Your task to perform on an android device: Open the phone app and click the voicemail tab. Image 0: 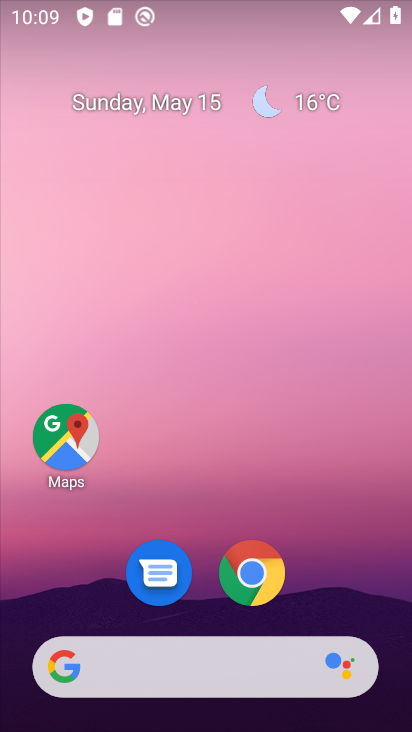
Step 0: press home button
Your task to perform on an android device: Open the phone app and click the voicemail tab. Image 1: 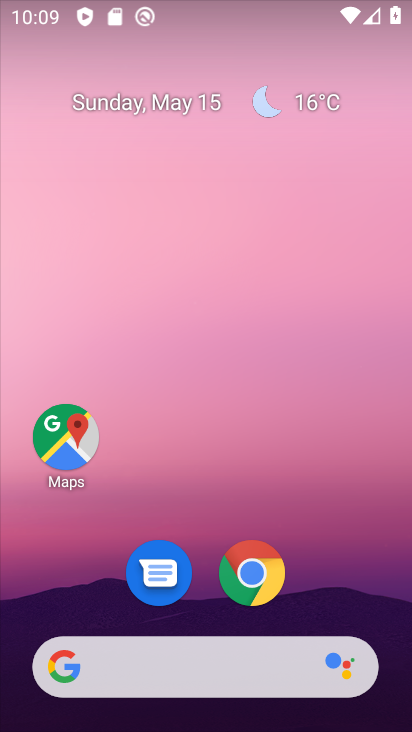
Step 1: drag from (313, 588) to (260, 111)
Your task to perform on an android device: Open the phone app and click the voicemail tab. Image 2: 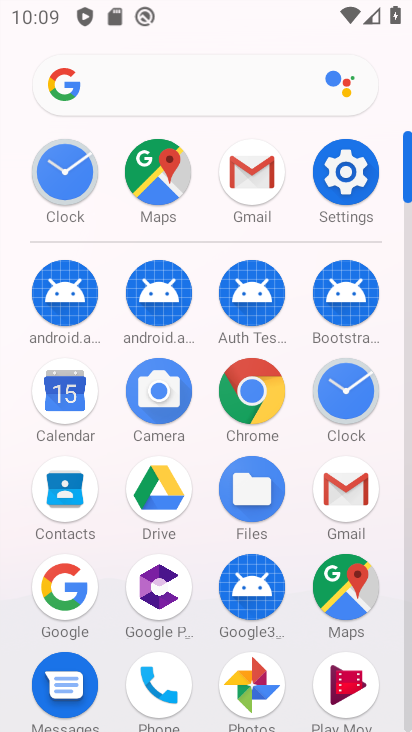
Step 2: click (152, 689)
Your task to perform on an android device: Open the phone app and click the voicemail tab. Image 3: 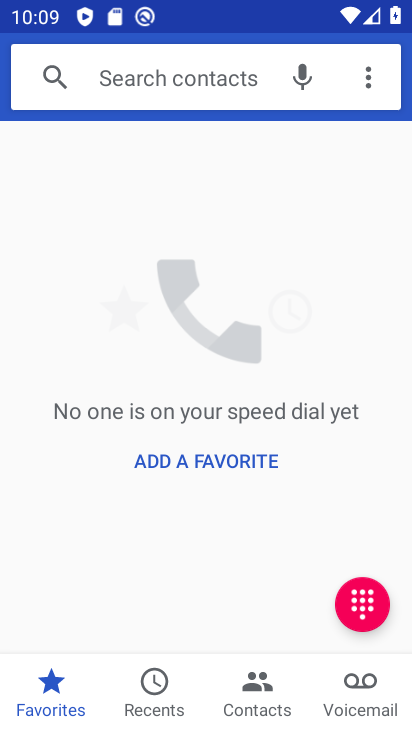
Step 3: click (368, 690)
Your task to perform on an android device: Open the phone app and click the voicemail tab. Image 4: 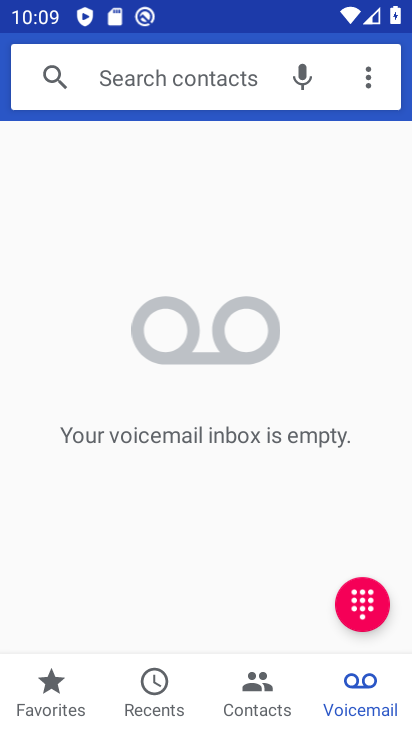
Step 4: task complete